Your task to perform on an android device: Turn off the flashlight Image 0: 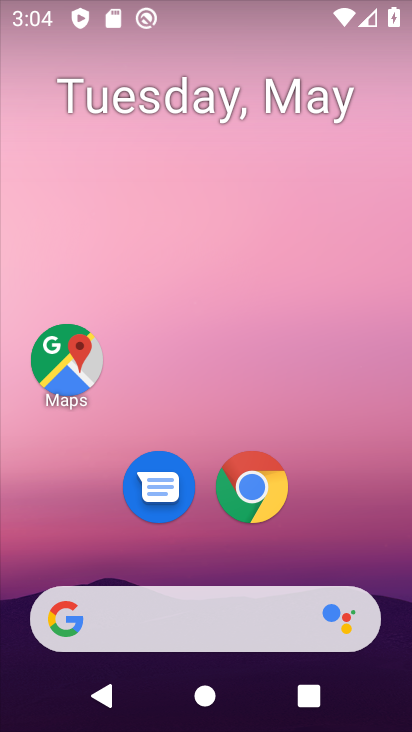
Step 0: drag from (195, 548) to (223, 14)
Your task to perform on an android device: Turn off the flashlight Image 1: 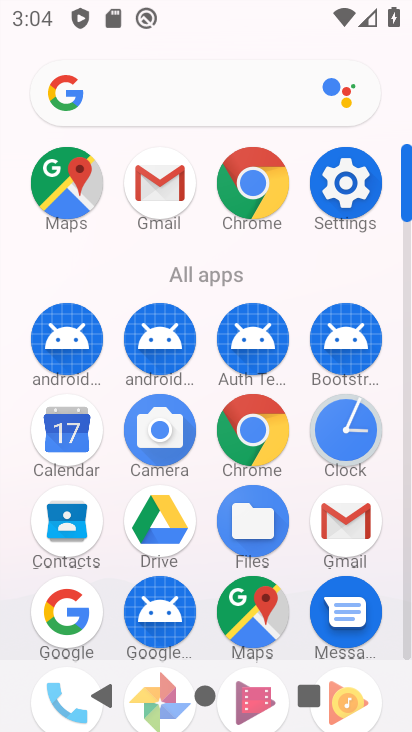
Step 1: click (349, 171)
Your task to perform on an android device: Turn off the flashlight Image 2: 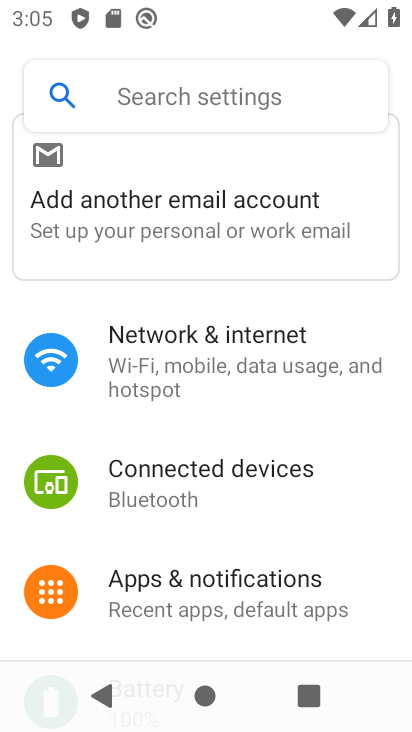
Step 2: task complete